Your task to perform on an android device: Find coffee shops on Maps Image 0: 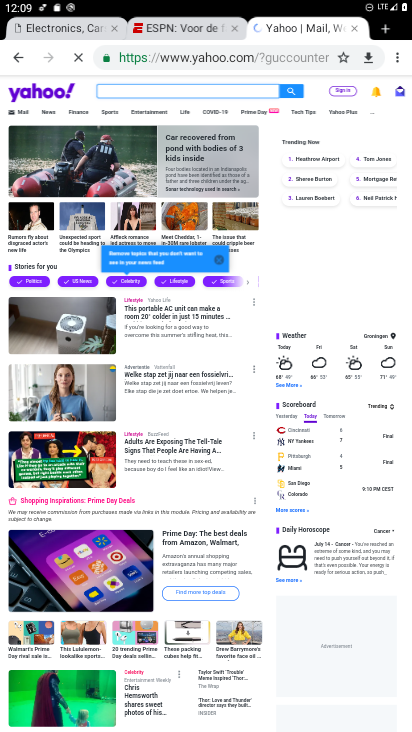
Step 0: press home button
Your task to perform on an android device: Find coffee shops on Maps Image 1: 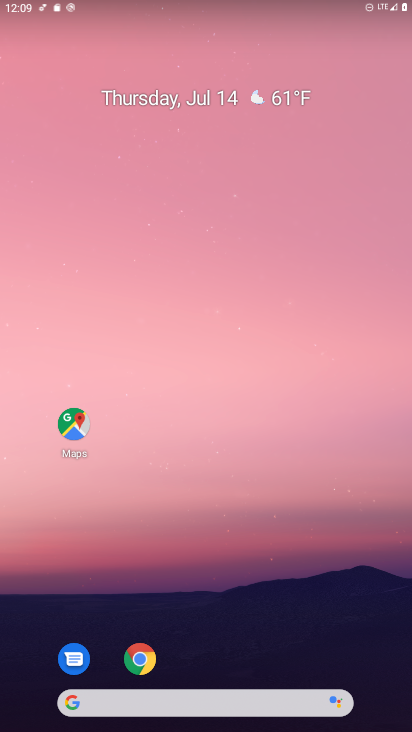
Step 1: click (69, 424)
Your task to perform on an android device: Find coffee shops on Maps Image 2: 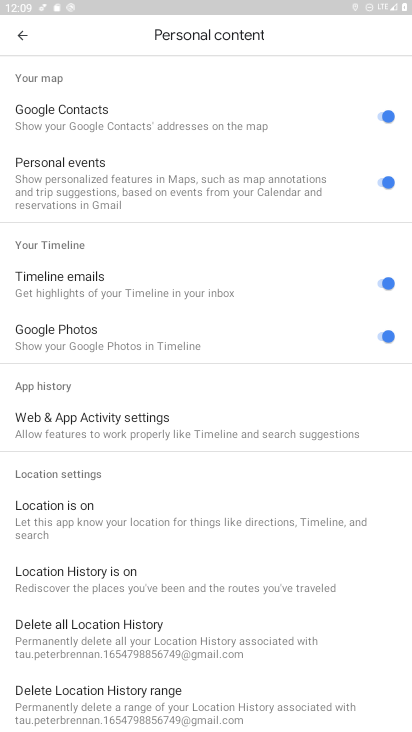
Step 2: press back button
Your task to perform on an android device: Find coffee shops on Maps Image 3: 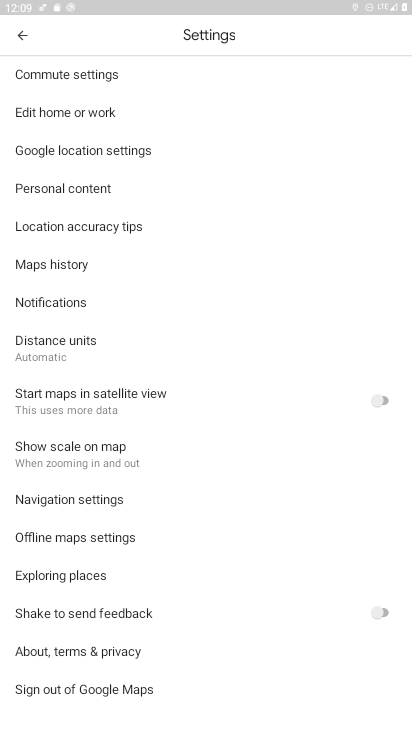
Step 3: press back button
Your task to perform on an android device: Find coffee shops on Maps Image 4: 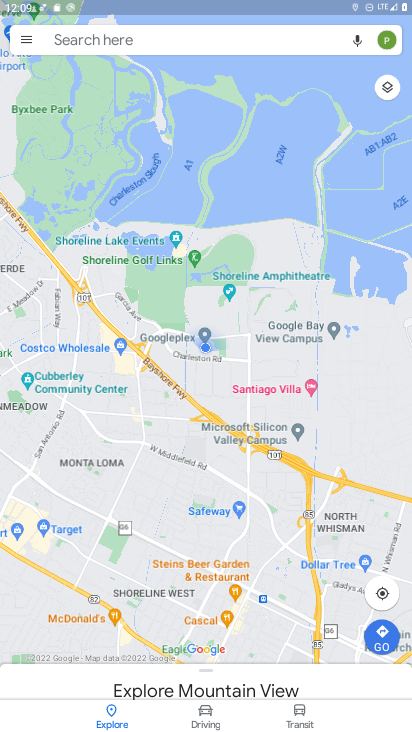
Step 4: click (111, 40)
Your task to perform on an android device: Find coffee shops on Maps Image 5: 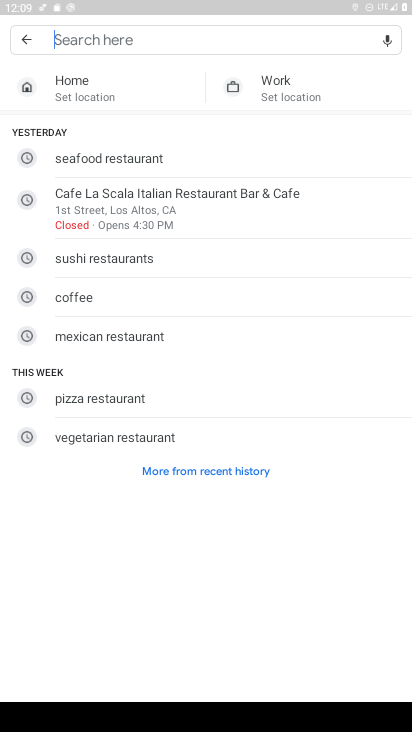
Step 5: type "coffee shop"
Your task to perform on an android device: Find coffee shops on Maps Image 6: 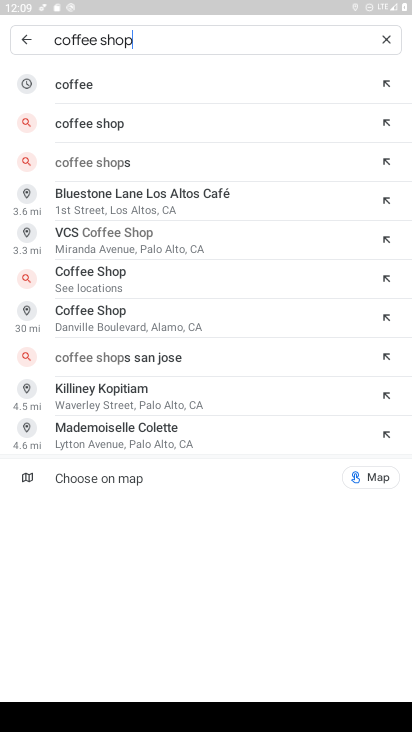
Step 6: click (78, 121)
Your task to perform on an android device: Find coffee shops on Maps Image 7: 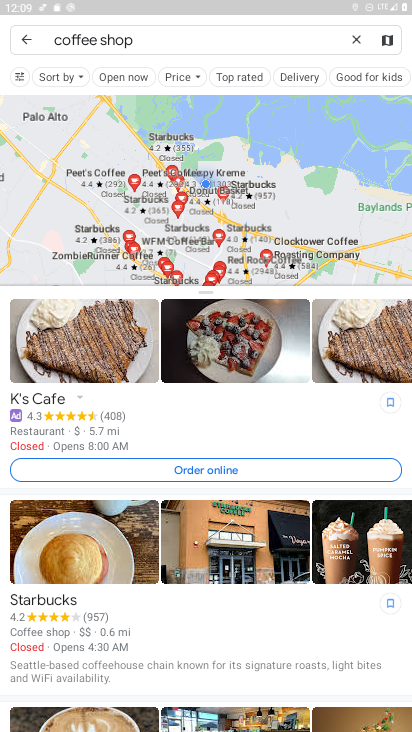
Step 7: task complete